Your task to perform on an android device: move a message to another label in the gmail app Image 0: 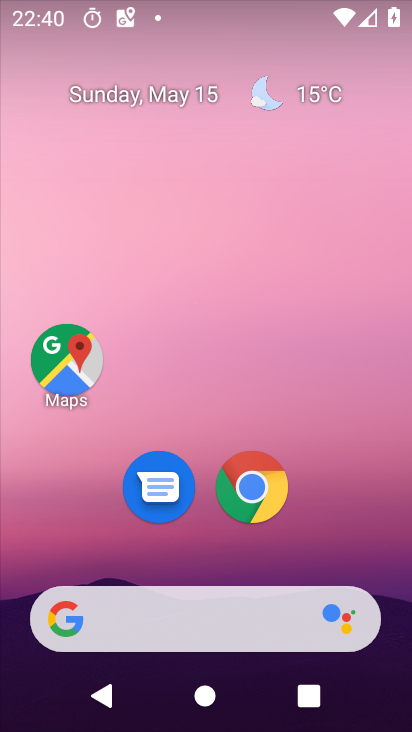
Step 0: drag from (338, 523) to (408, 216)
Your task to perform on an android device: move a message to another label in the gmail app Image 1: 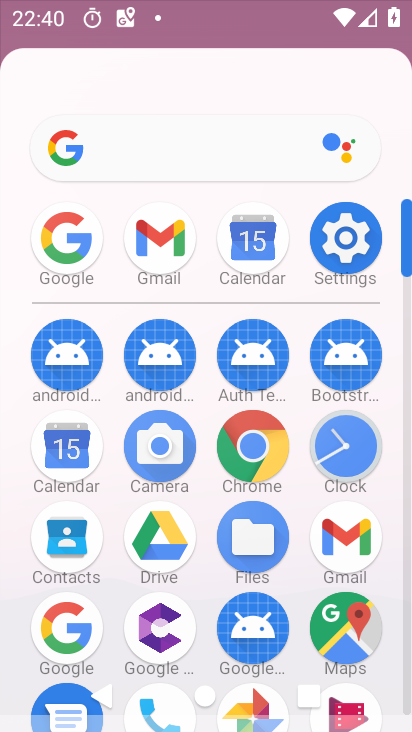
Step 1: drag from (286, 593) to (403, 170)
Your task to perform on an android device: move a message to another label in the gmail app Image 2: 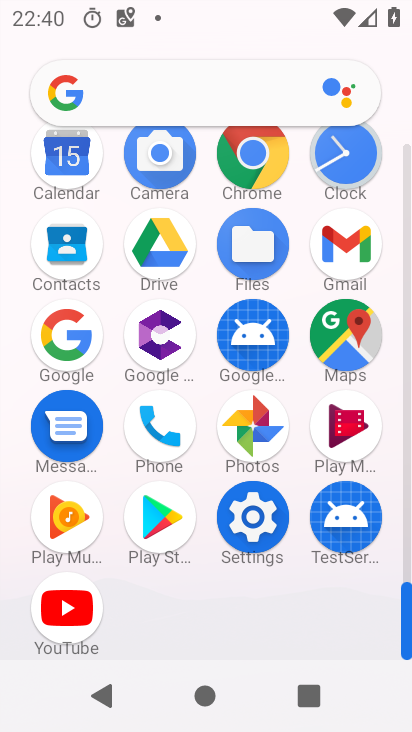
Step 2: click (331, 262)
Your task to perform on an android device: move a message to another label in the gmail app Image 3: 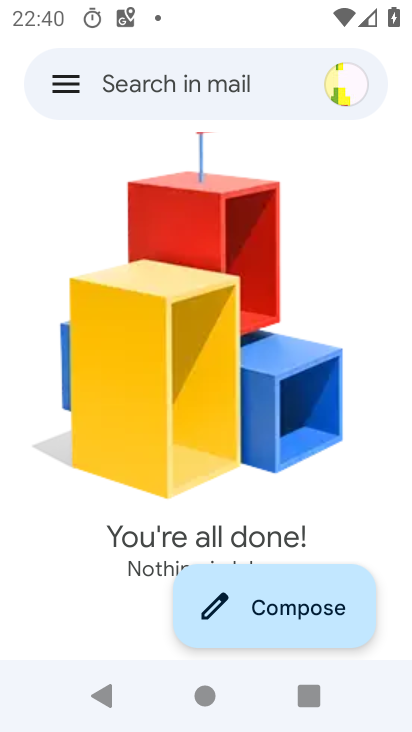
Step 3: click (53, 80)
Your task to perform on an android device: move a message to another label in the gmail app Image 4: 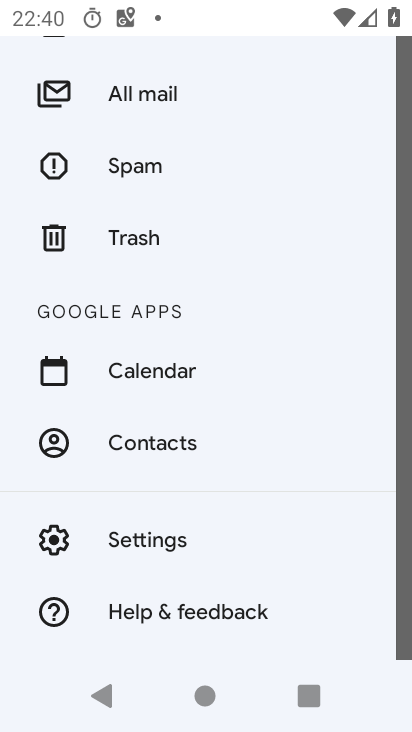
Step 4: drag from (342, 81) to (239, 439)
Your task to perform on an android device: move a message to another label in the gmail app Image 5: 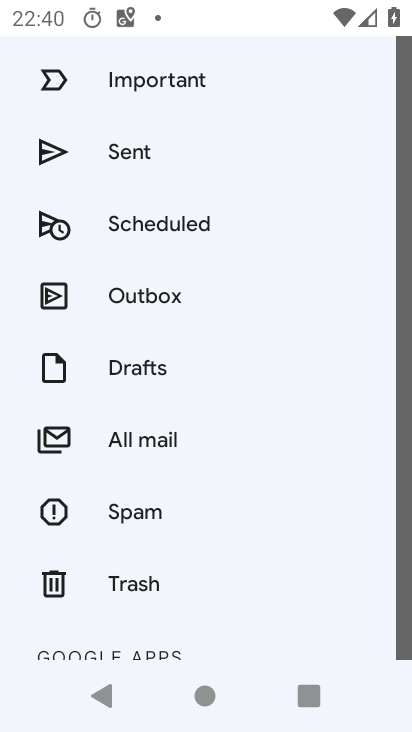
Step 5: drag from (263, 157) to (186, 458)
Your task to perform on an android device: move a message to another label in the gmail app Image 6: 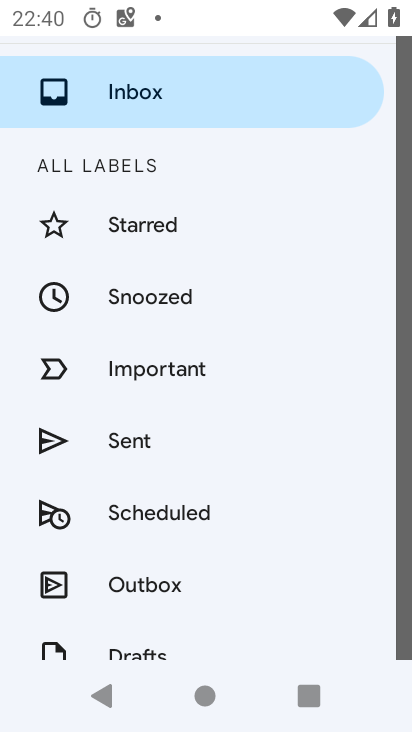
Step 6: click (230, 101)
Your task to perform on an android device: move a message to another label in the gmail app Image 7: 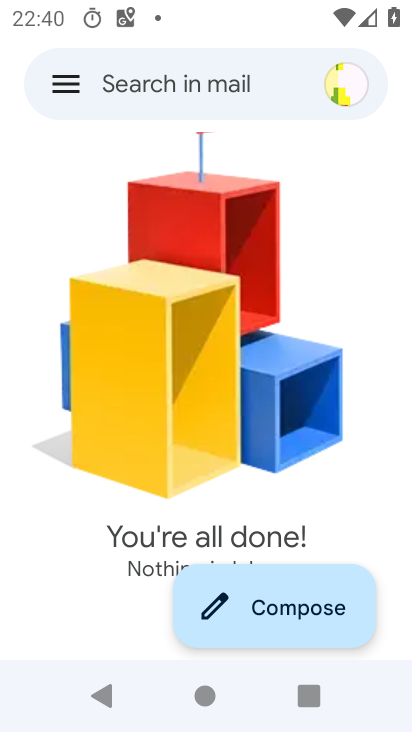
Step 7: task complete